Your task to perform on an android device: Open internet settings Image 0: 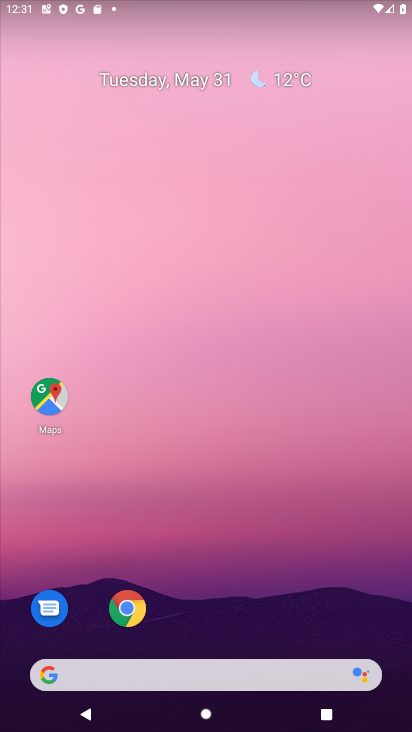
Step 0: drag from (211, 582) to (260, 138)
Your task to perform on an android device: Open internet settings Image 1: 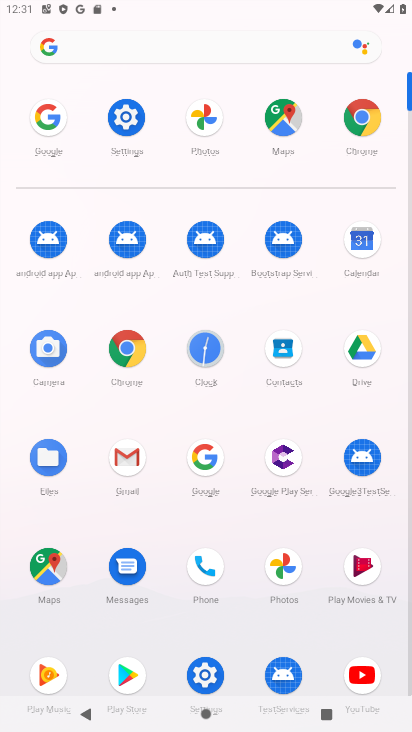
Step 1: click (127, 118)
Your task to perform on an android device: Open internet settings Image 2: 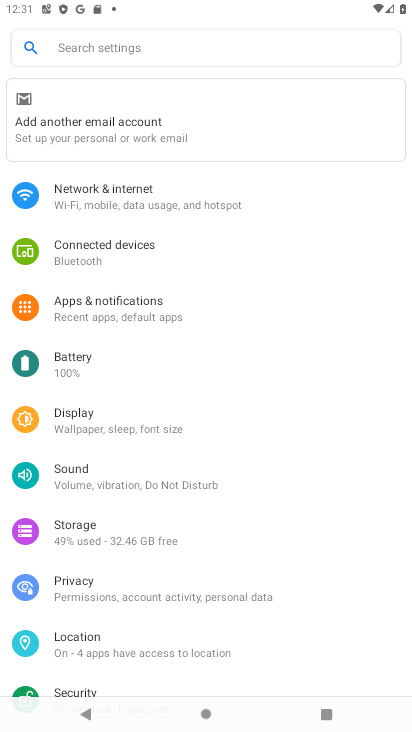
Step 2: drag from (48, 232) to (10, 196)
Your task to perform on an android device: Open internet settings Image 3: 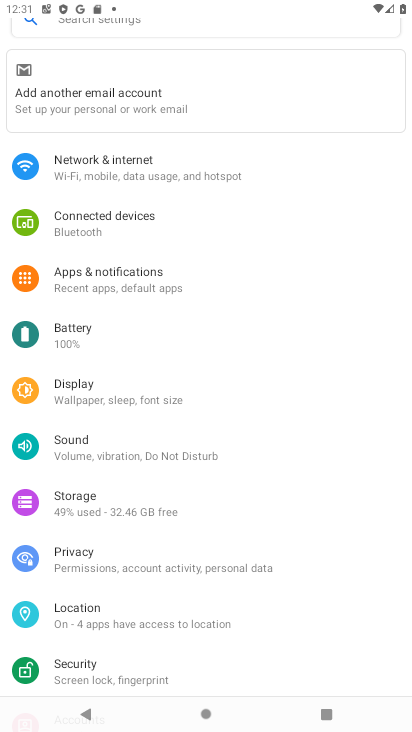
Step 3: click (147, 194)
Your task to perform on an android device: Open internet settings Image 4: 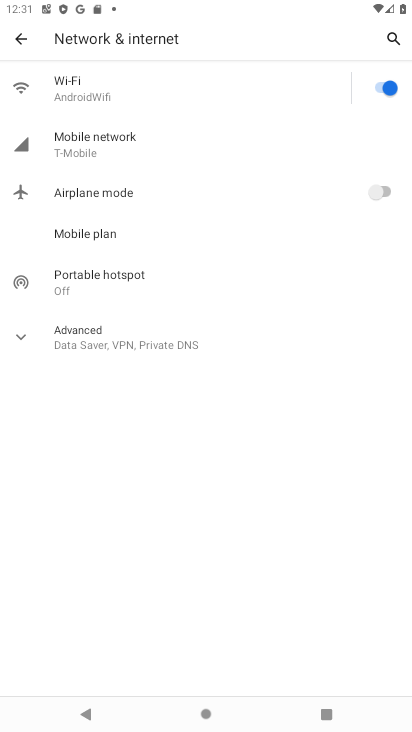
Step 4: click (104, 81)
Your task to perform on an android device: Open internet settings Image 5: 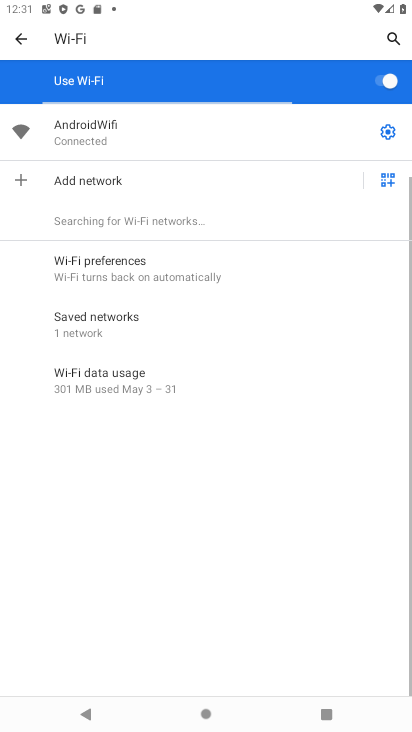
Step 5: click (177, 128)
Your task to perform on an android device: Open internet settings Image 6: 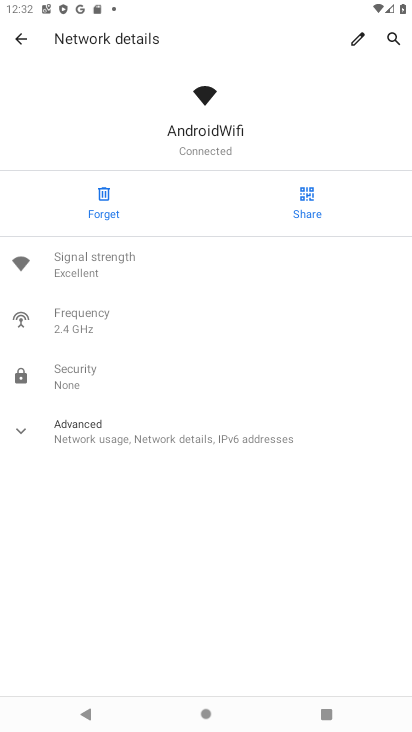
Step 6: task complete